Your task to perform on an android device: turn on priority inbox in the gmail app Image 0: 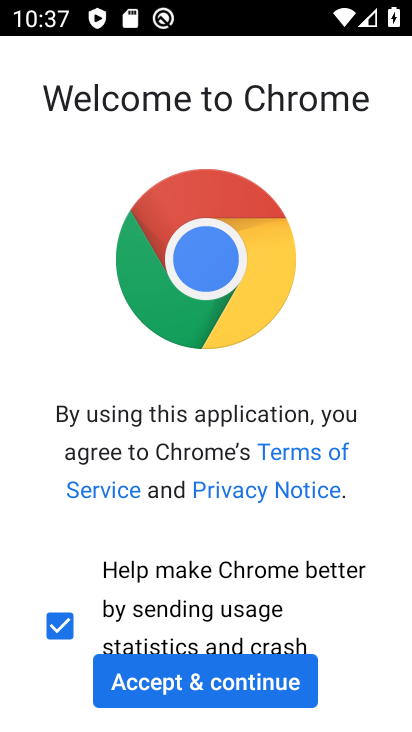
Step 0: press home button
Your task to perform on an android device: turn on priority inbox in the gmail app Image 1: 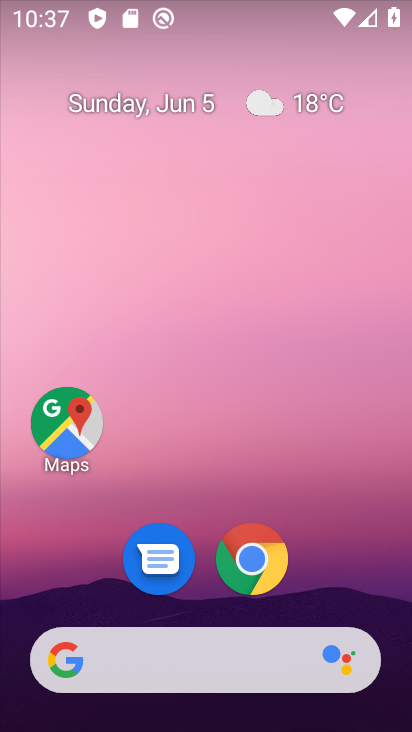
Step 1: drag from (356, 607) to (284, 142)
Your task to perform on an android device: turn on priority inbox in the gmail app Image 2: 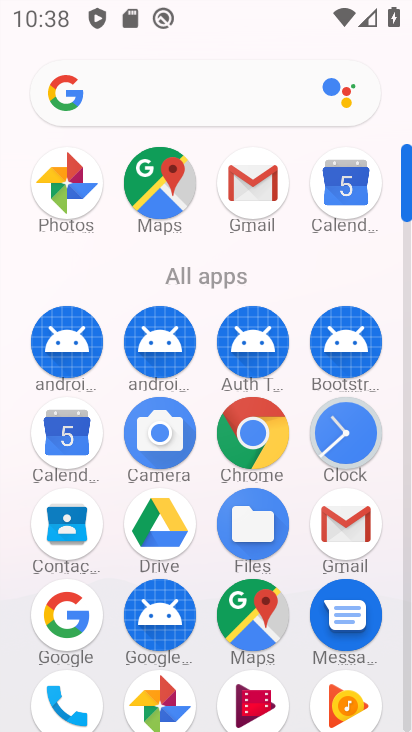
Step 2: click (263, 197)
Your task to perform on an android device: turn on priority inbox in the gmail app Image 3: 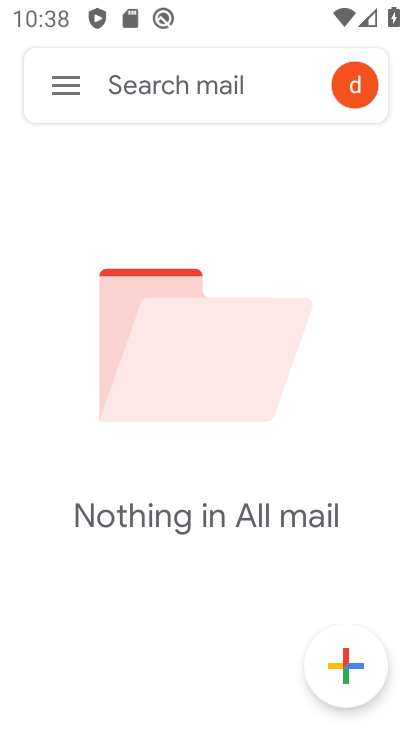
Step 3: click (49, 99)
Your task to perform on an android device: turn on priority inbox in the gmail app Image 4: 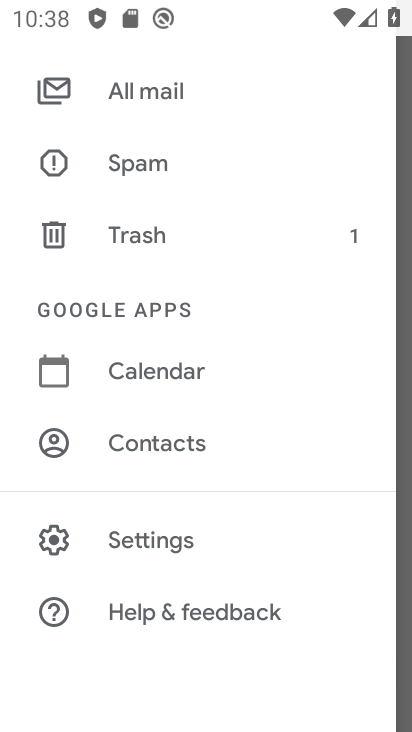
Step 4: click (212, 543)
Your task to perform on an android device: turn on priority inbox in the gmail app Image 5: 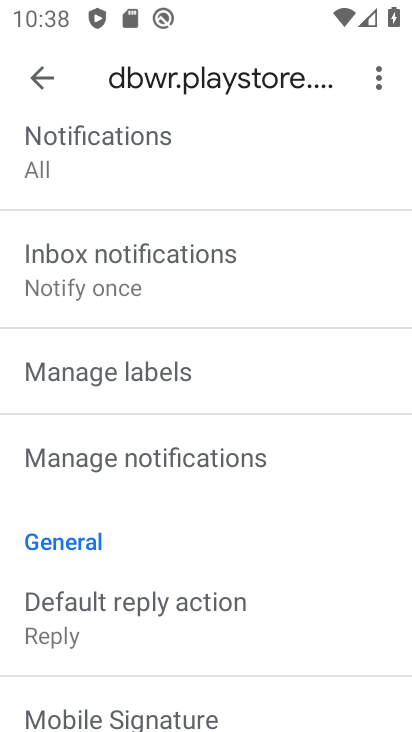
Step 5: drag from (177, 170) to (221, 631)
Your task to perform on an android device: turn on priority inbox in the gmail app Image 6: 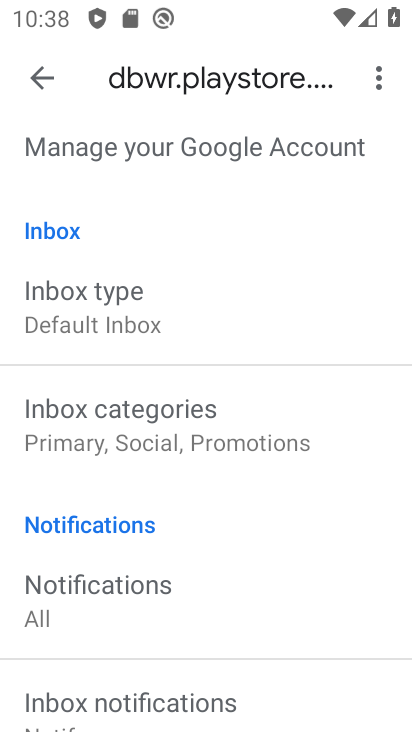
Step 6: click (136, 324)
Your task to perform on an android device: turn on priority inbox in the gmail app Image 7: 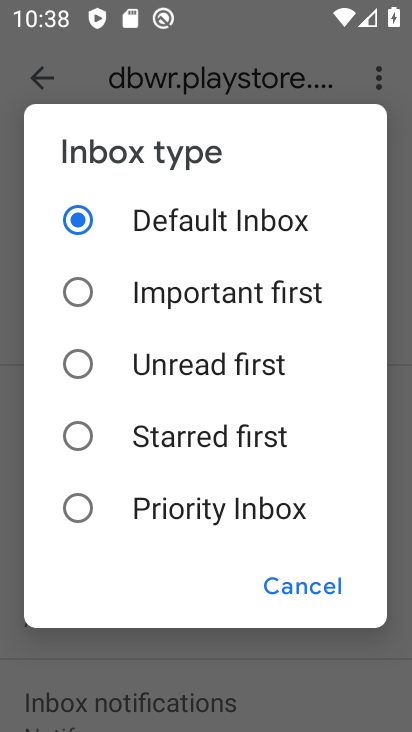
Step 7: click (195, 505)
Your task to perform on an android device: turn on priority inbox in the gmail app Image 8: 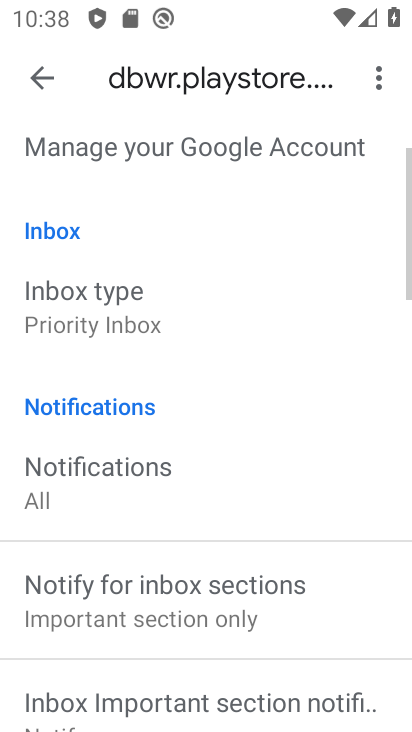
Step 8: task complete